Your task to perform on an android device: What's the weather going to be this weekend? Image 0: 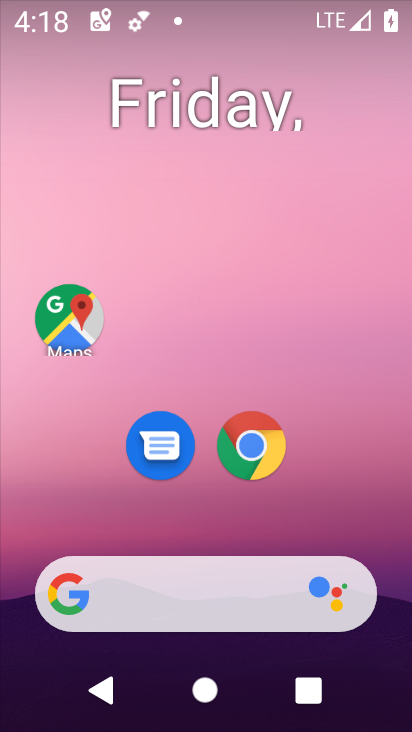
Step 0: drag from (399, 559) to (273, 83)
Your task to perform on an android device: What's the weather going to be this weekend? Image 1: 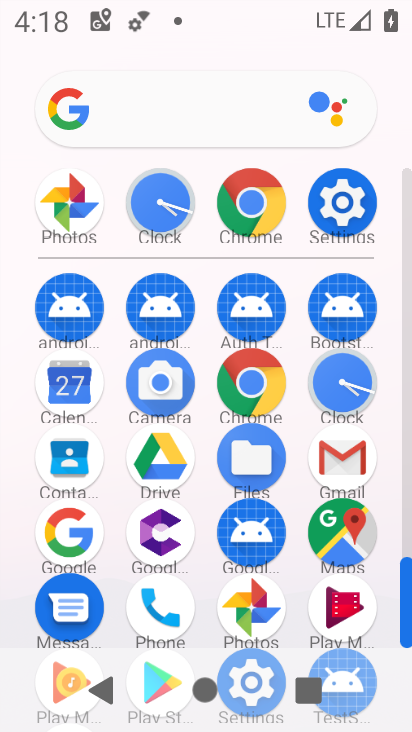
Step 1: click (66, 404)
Your task to perform on an android device: What's the weather going to be this weekend? Image 2: 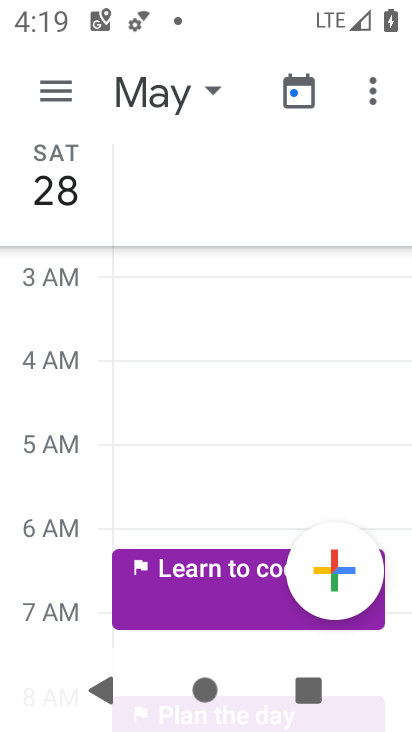
Step 2: press home button
Your task to perform on an android device: What's the weather going to be this weekend? Image 3: 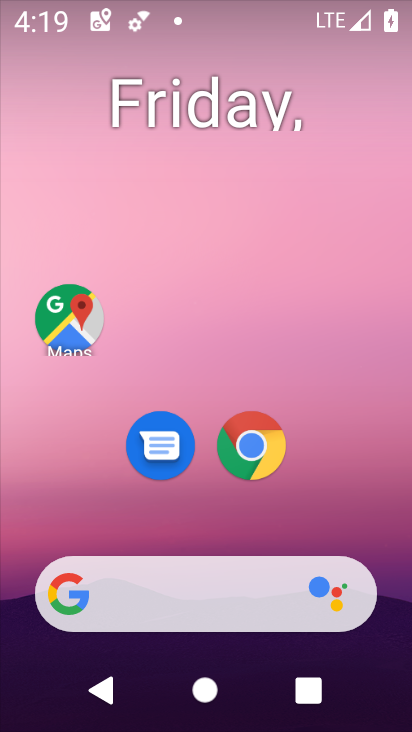
Step 3: drag from (353, 682) to (386, 562)
Your task to perform on an android device: What's the weather going to be this weekend? Image 4: 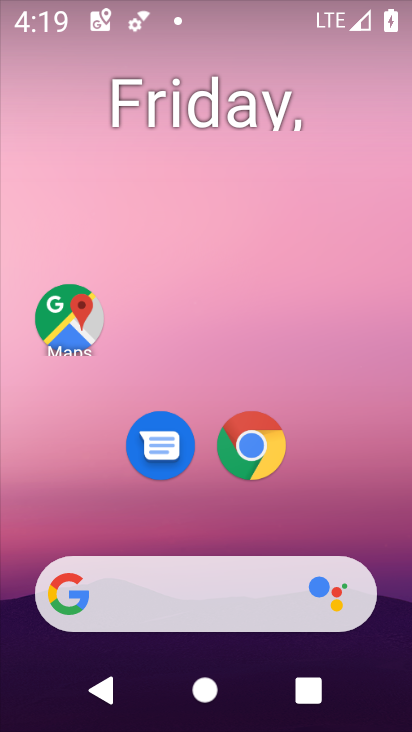
Step 4: click (261, 438)
Your task to perform on an android device: What's the weather going to be this weekend? Image 5: 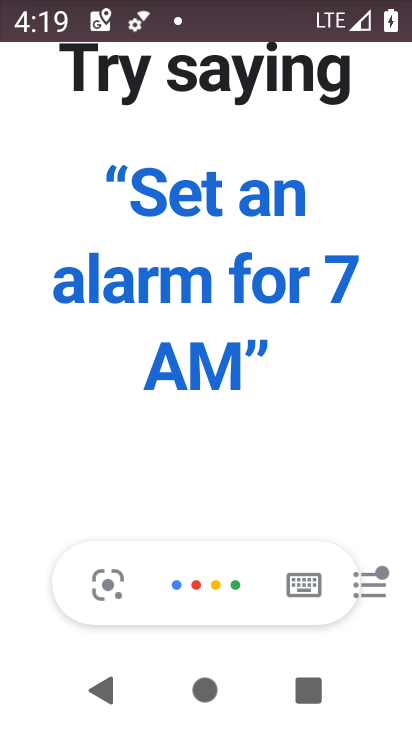
Step 5: press home button
Your task to perform on an android device: What's the weather going to be this weekend? Image 6: 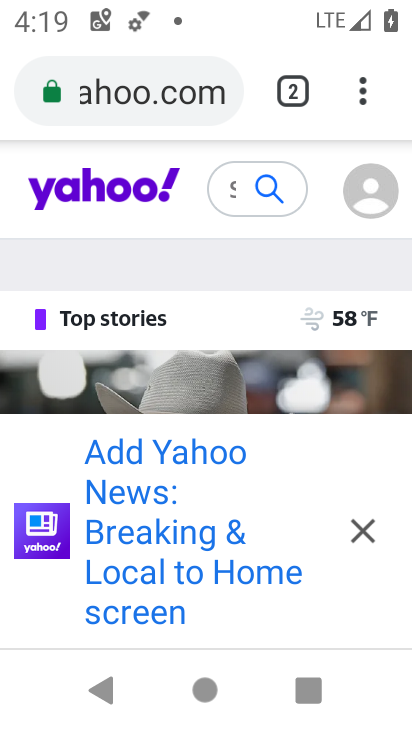
Step 6: click (172, 92)
Your task to perform on an android device: What's the weather going to be this weekend? Image 7: 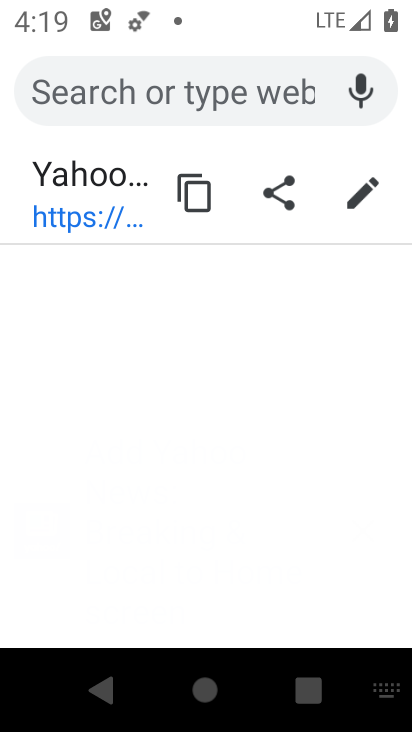
Step 7: type "What's the weather going to be this weekend?"
Your task to perform on an android device: What's the weather going to be this weekend? Image 8: 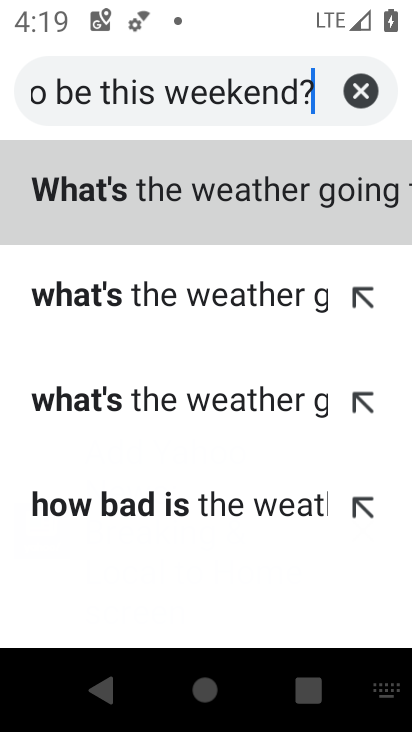
Step 8: click (281, 175)
Your task to perform on an android device: What's the weather going to be this weekend? Image 9: 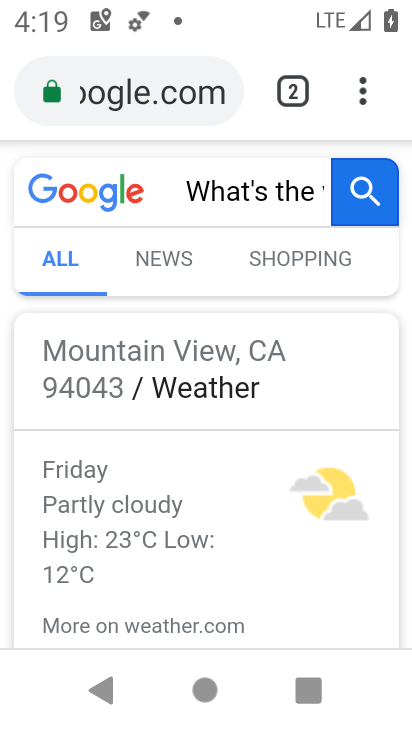
Step 9: task complete